Your task to perform on an android device: all mails in gmail Image 0: 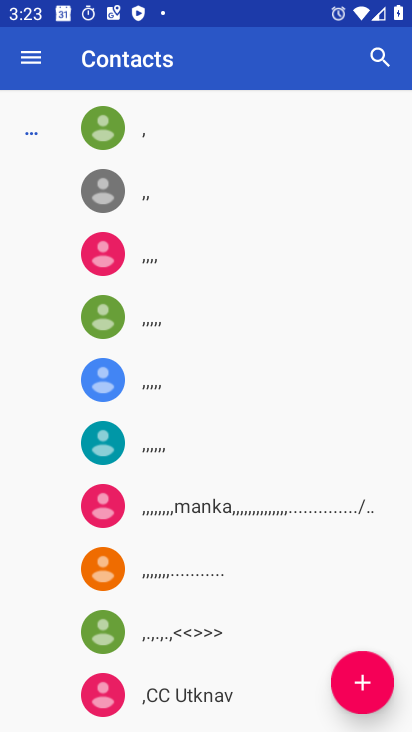
Step 0: press back button
Your task to perform on an android device: all mails in gmail Image 1: 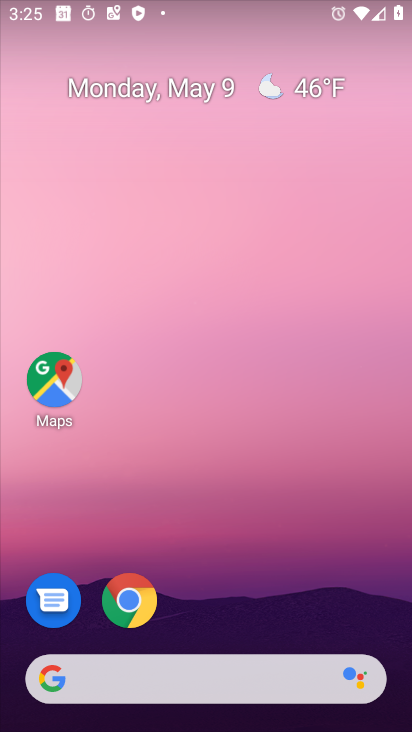
Step 1: drag from (179, 589) to (291, 25)
Your task to perform on an android device: all mails in gmail Image 2: 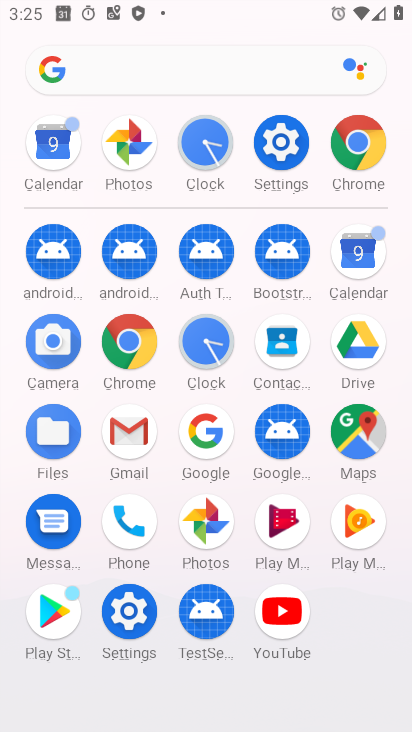
Step 2: click (125, 452)
Your task to perform on an android device: all mails in gmail Image 3: 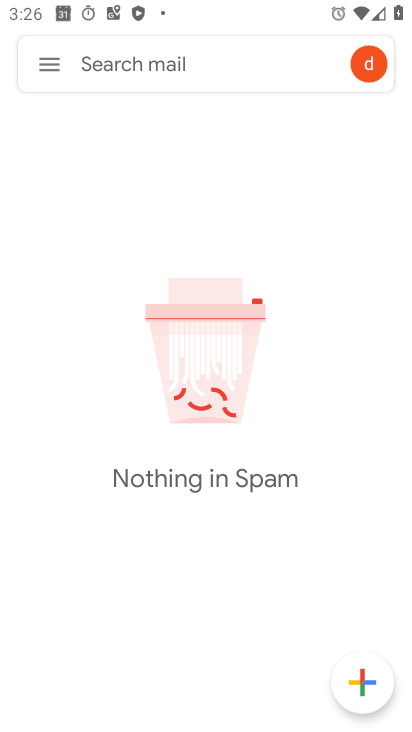
Step 3: task complete